Your task to perform on an android device: Open location settings Image 0: 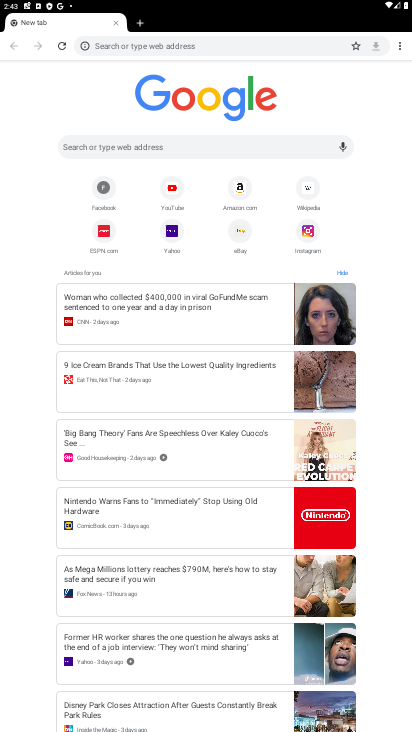
Step 0: press home button
Your task to perform on an android device: Open location settings Image 1: 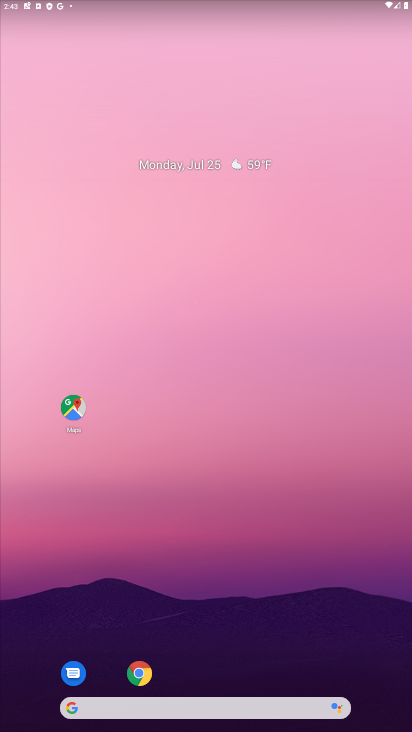
Step 1: drag from (300, 668) to (323, 93)
Your task to perform on an android device: Open location settings Image 2: 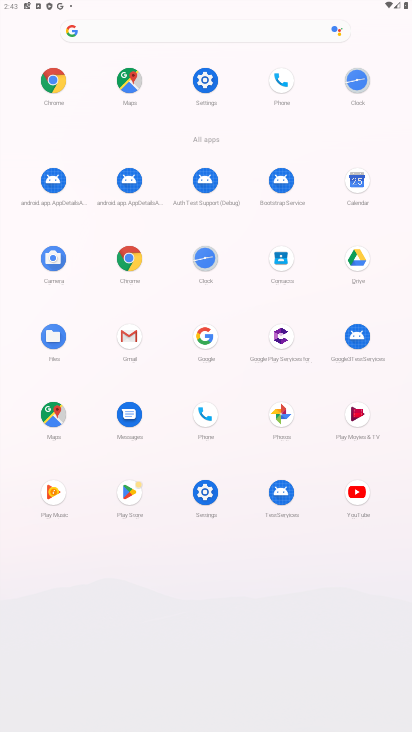
Step 2: click (197, 88)
Your task to perform on an android device: Open location settings Image 3: 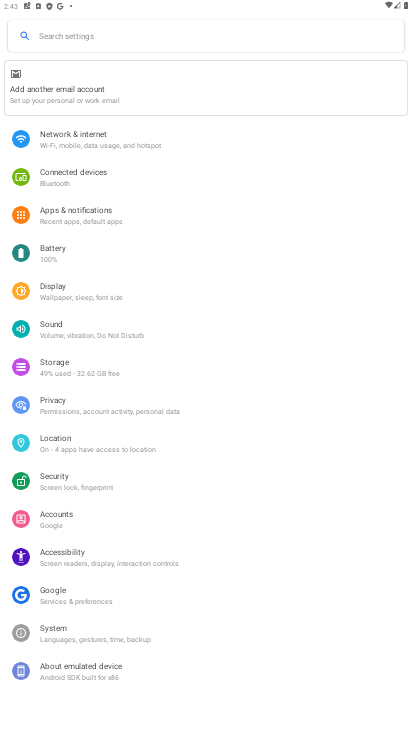
Step 3: click (75, 447)
Your task to perform on an android device: Open location settings Image 4: 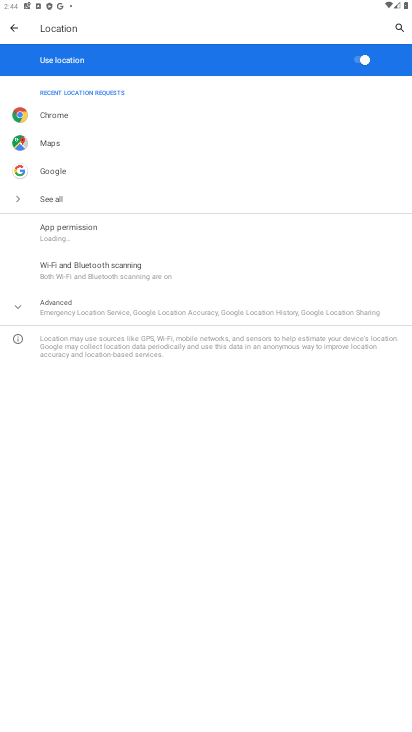
Step 4: task complete